Your task to perform on an android device: turn on wifi Image 0: 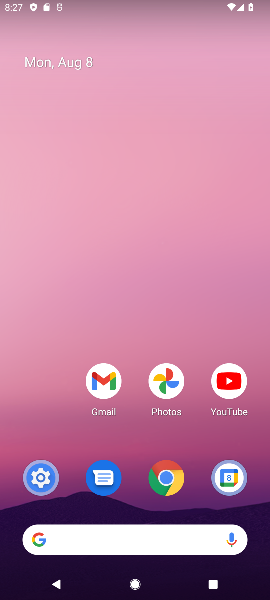
Step 0: drag from (155, 537) to (265, 143)
Your task to perform on an android device: turn on wifi Image 1: 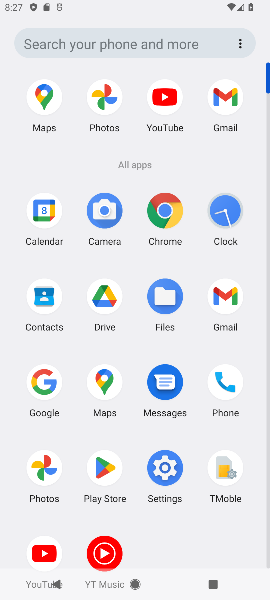
Step 1: click (163, 464)
Your task to perform on an android device: turn on wifi Image 2: 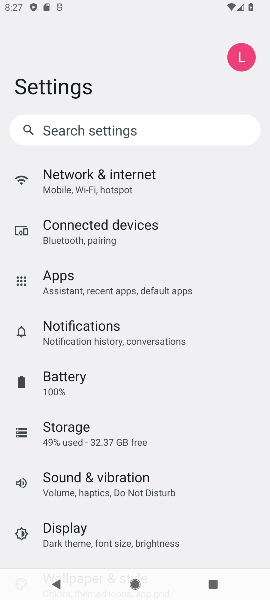
Step 2: click (122, 186)
Your task to perform on an android device: turn on wifi Image 3: 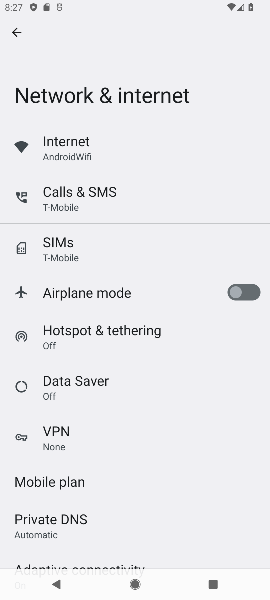
Step 3: click (81, 141)
Your task to perform on an android device: turn on wifi Image 4: 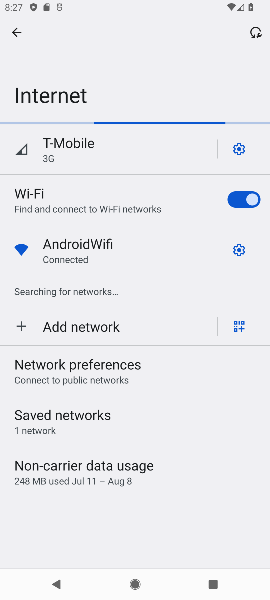
Step 4: task complete